Your task to perform on an android device: Open display settings Image 0: 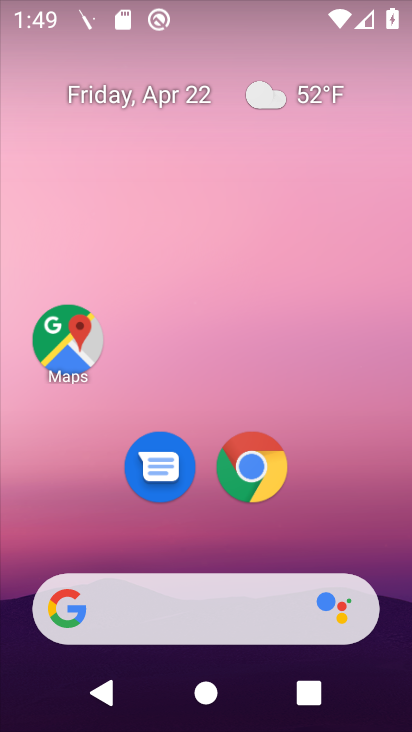
Step 0: drag from (320, 456) to (306, 133)
Your task to perform on an android device: Open display settings Image 1: 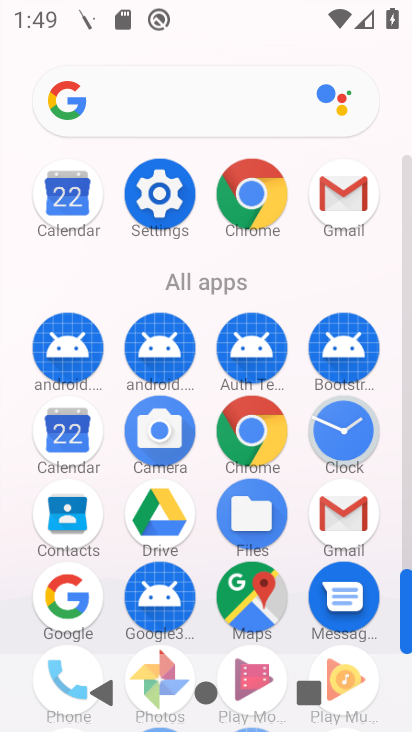
Step 1: click (161, 198)
Your task to perform on an android device: Open display settings Image 2: 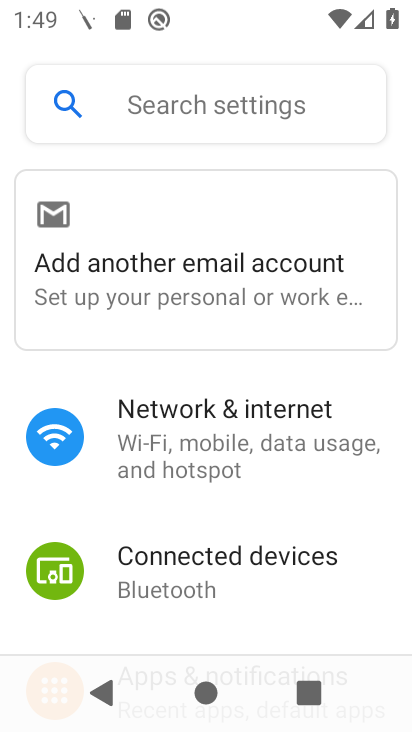
Step 2: press home button
Your task to perform on an android device: Open display settings Image 3: 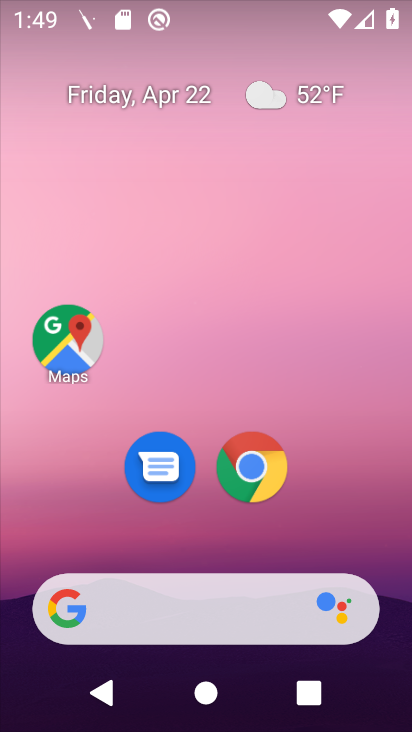
Step 3: drag from (339, 534) to (339, 115)
Your task to perform on an android device: Open display settings Image 4: 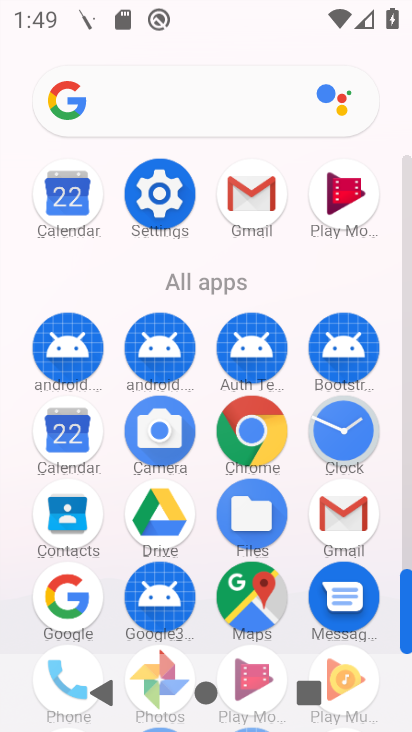
Step 4: click (150, 203)
Your task to perform on an android device: Open display settings Image 5: 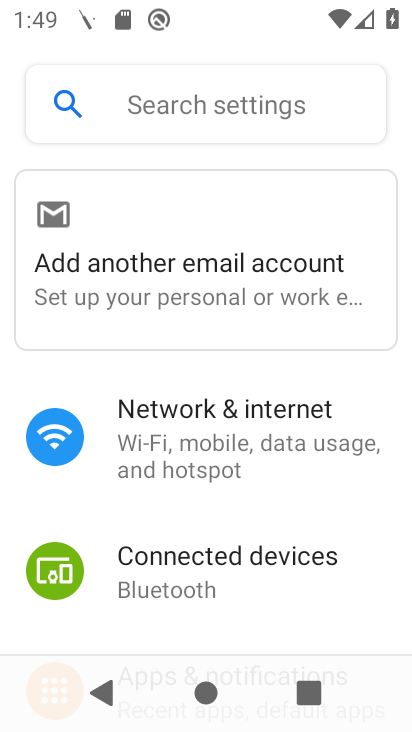
Step 5: drag from (231, 505) to (262, 226)
Your task to perform on an android device: Open display settings Image 6: 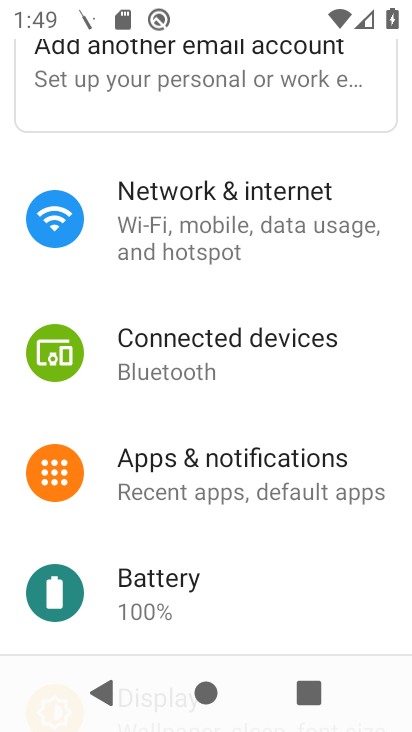
Step 6: drag from (249, 538) to (249, 242)
Your task to perform on an android device: Open display settings Image 7: 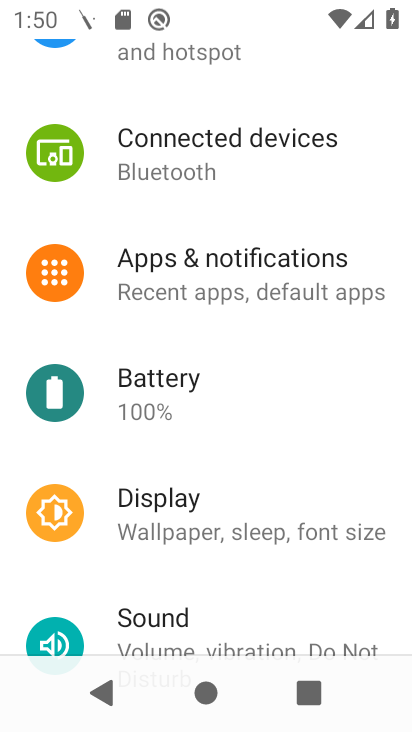
Step 7: click (198, 508)
Your task to perform on an android device: Open display settings Image 8: 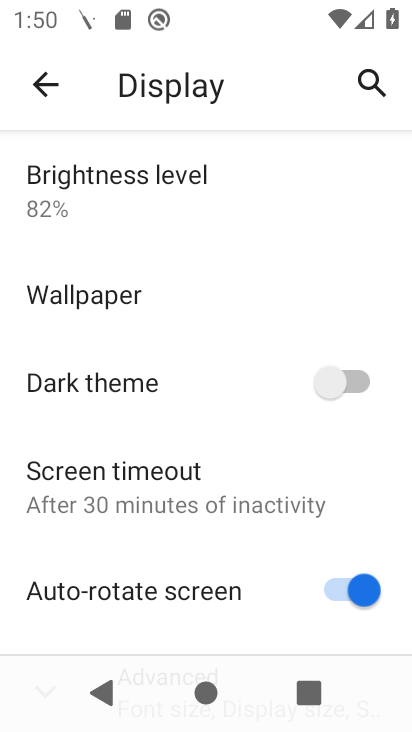
Step 8: task complete